Your task to perform on an android device: Go to internet settings Image 0: 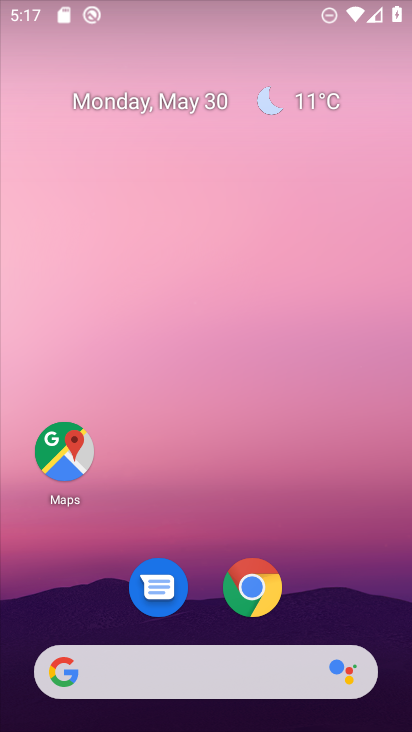
Step 0: click (253, 581)
Your task to perform on an android device: Go to internet settings Image 1: 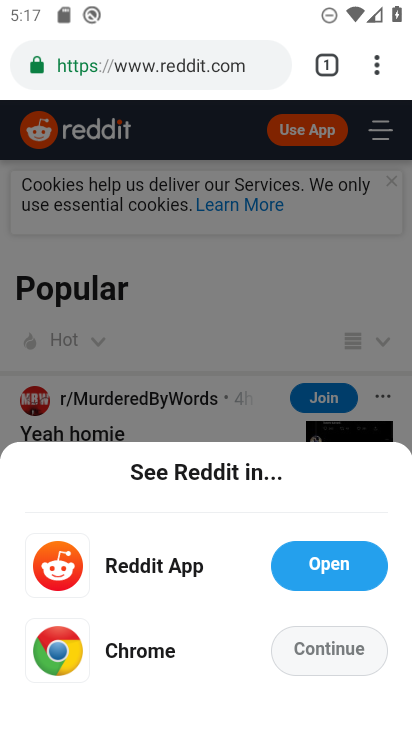
Step 1: press back button
Your task to perform on an android device: Go to internet settings Image 2: 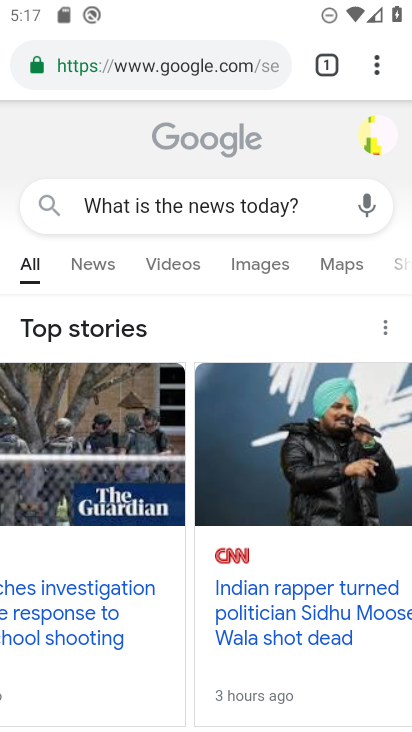
Step 2: press back button
Your task to perform on an android device: Go to internet settings Image 3: 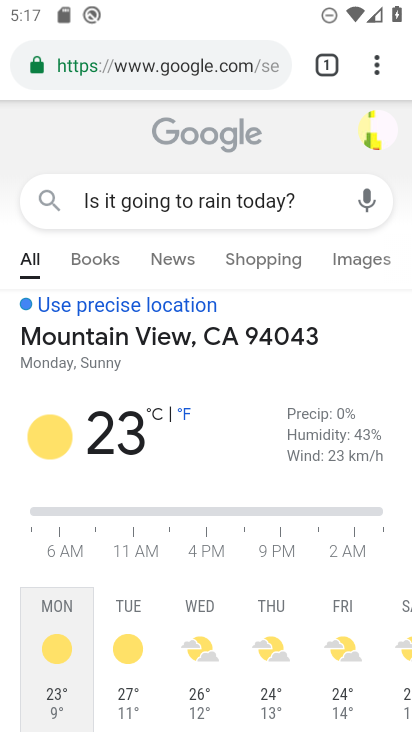
Step 3: press home button
Your task to perform on an android device: Go to internet settings Image 4: 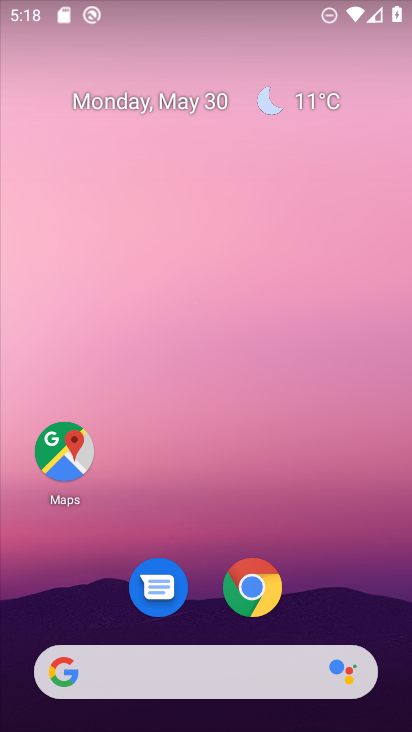
Step 4: drag from (308, 587) to (237, 8)
Your task to perform on an android device: Go to internet settings Image 5: 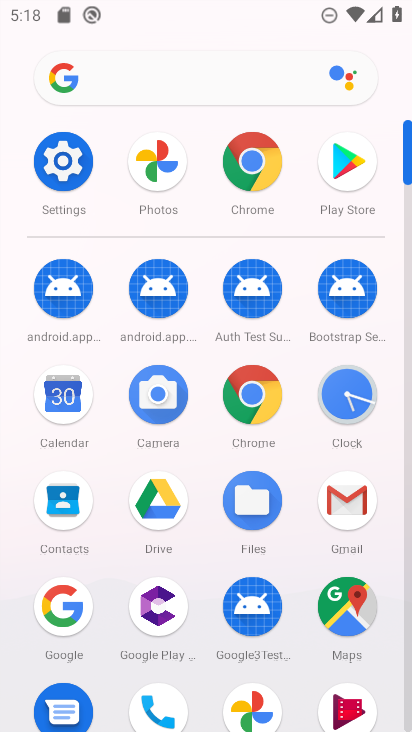
Step 5: click (65, 157)
Your task to perform on an android device: Go to internet settings Image 6: 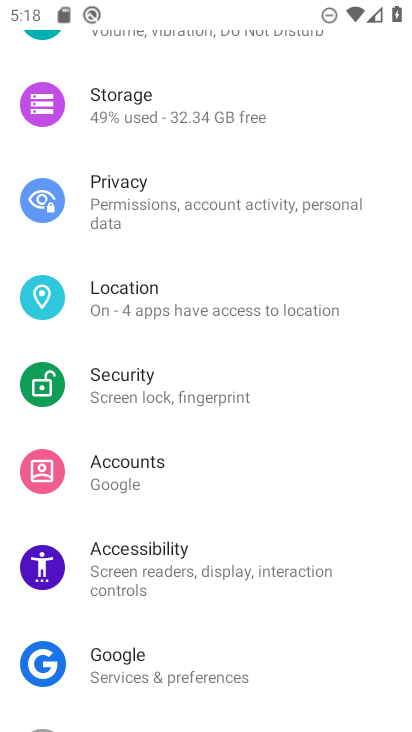
Step 6: drag from (249, 602) to (233, 27)
Your task to perform on an android device: Go to internet settings Image 7: 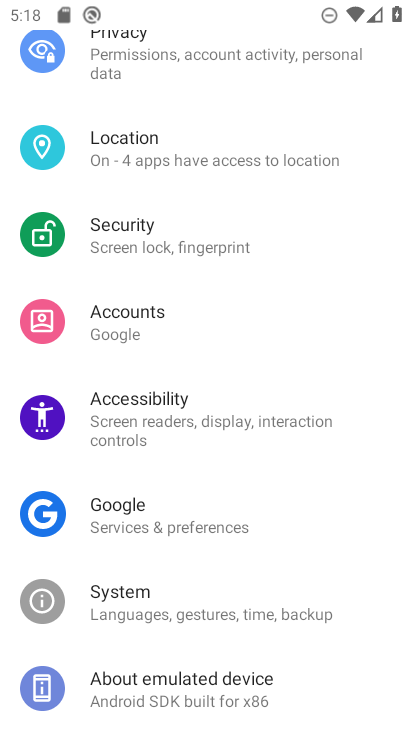
Step 7: drag from (238, 129) to (258, 604)
Your task to perform on an android device: Go to internet settings Image 8: 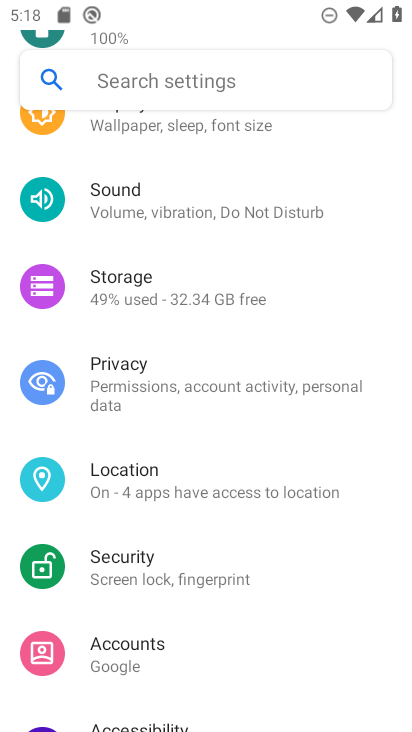
Step 8: drag from (253, 176) to (276, 666)
Your task to perform on an android device: Go to internet settings Image 9: 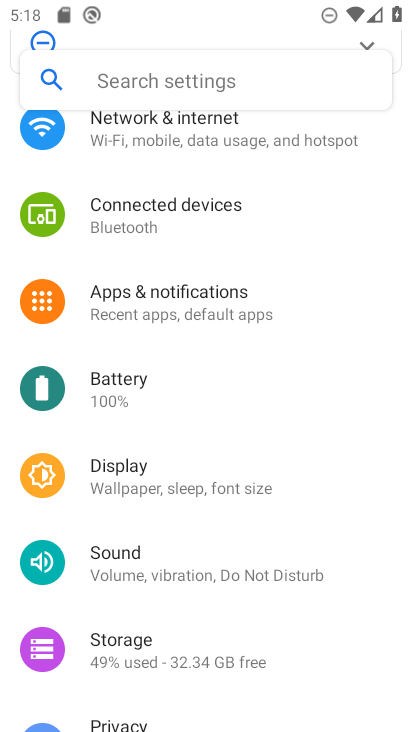
Step 9: drag from (252, 228) to (288, 619)
Your task to perform on an android device: Go to internet settings Image 10: 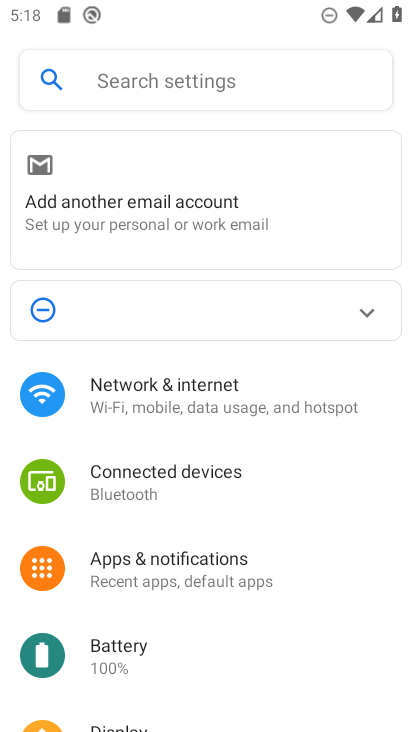
Step 10: click (227, 384)
Your task to perform on an android device: Go to internet settings Image 11: 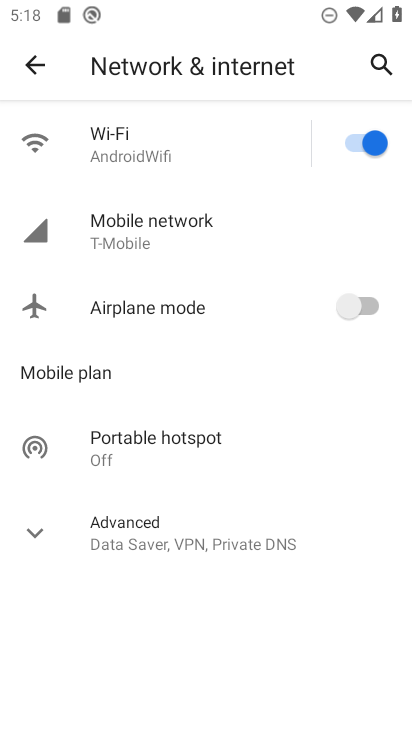
Step 11: click (108, 521)
Your task to perform on an android device: Go to internet settings Image 12: 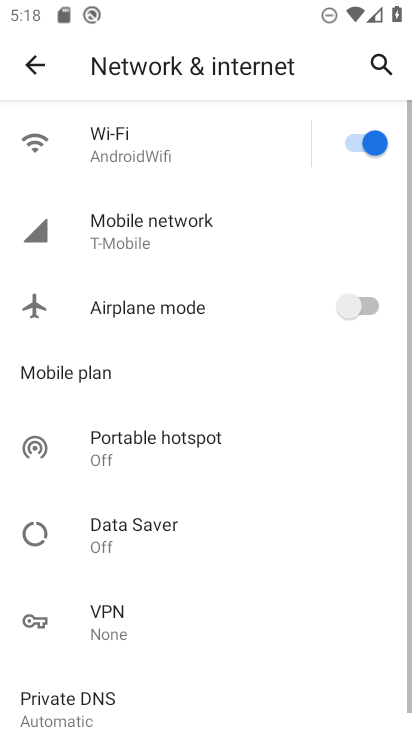
Step 12: task complete